Your task to perform on an android device: set the timer Image 0: 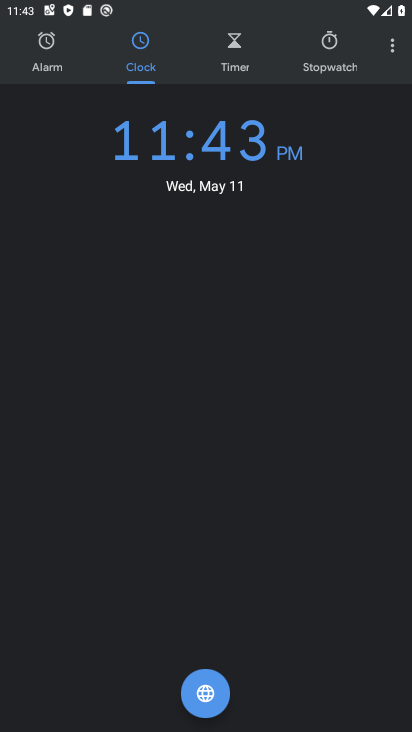
Step 0: click (234, 60)
Your task to perform on an android device: set the timer Image 1: 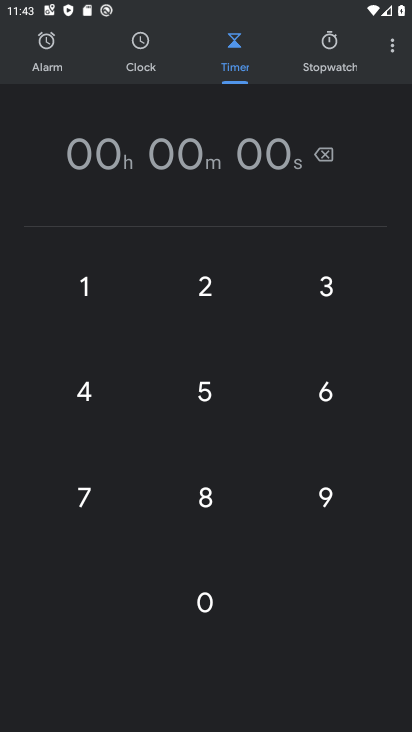
Step 1: click (201, 294)
Your task to perform on an android device: set the timer Image 2: 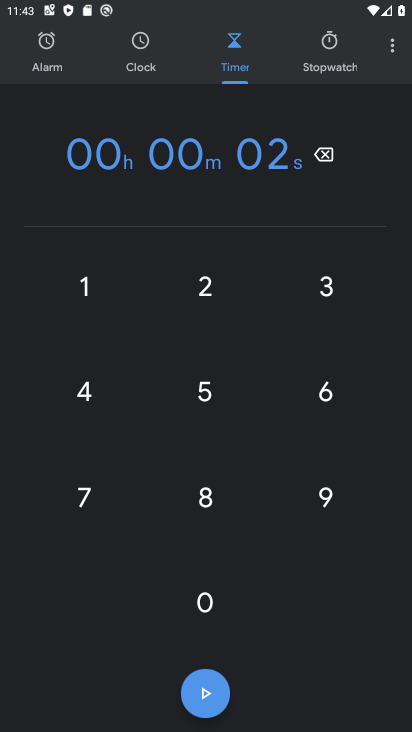
Step 2: click (76, 291)
Your task to perform on an android device: set the timer Image 3: 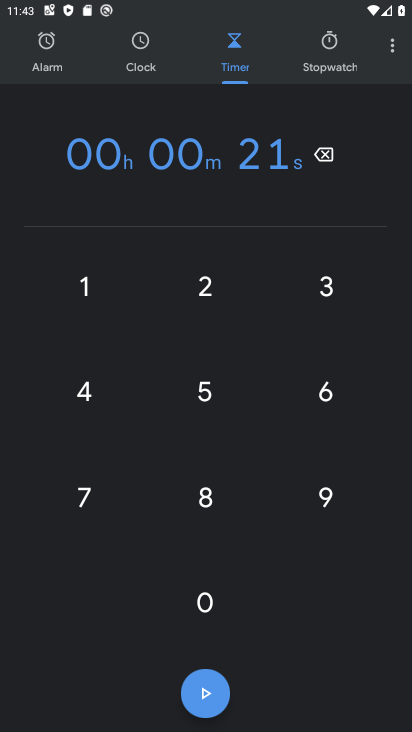
Step 3: click (84, 389)
Your task to perform on an android device: set the timer Image 4: 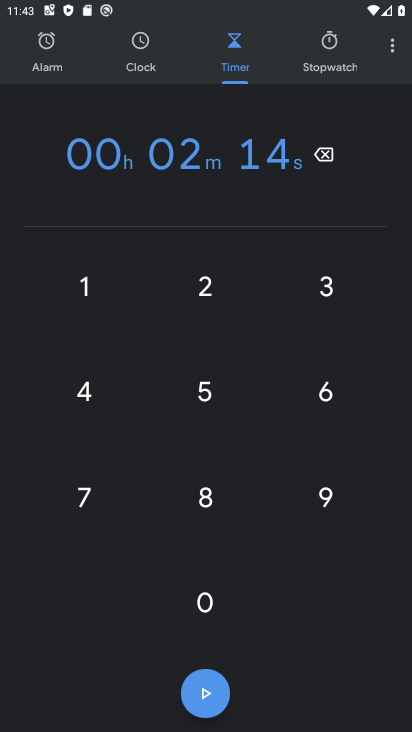
Step 4: click (323, 393)
Your task to perform on an android device: set the timer Image 5: 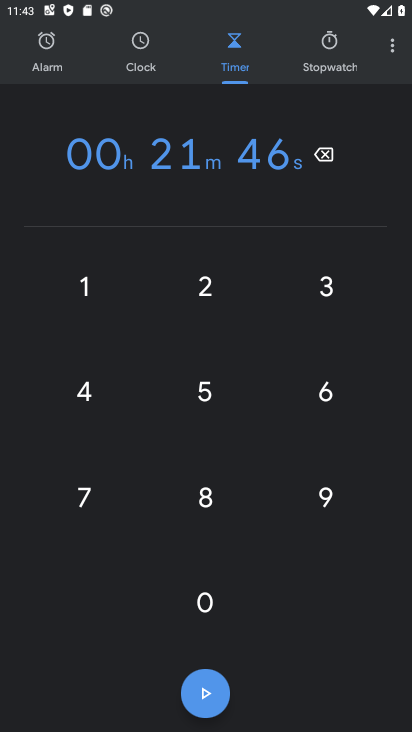
Step 5: click (199, 694)
Your task to perform on an android device: set the timer Image 6: 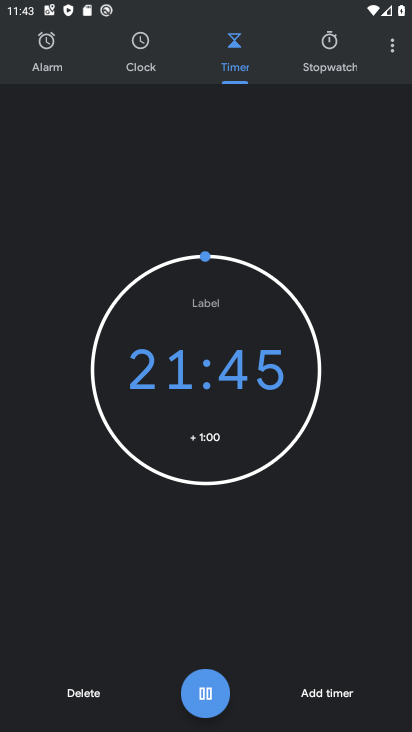
Step 6: task complete